Your task to perform on an android device: Open the calendar app, open the side menu, and click the "Day" option Image 0: 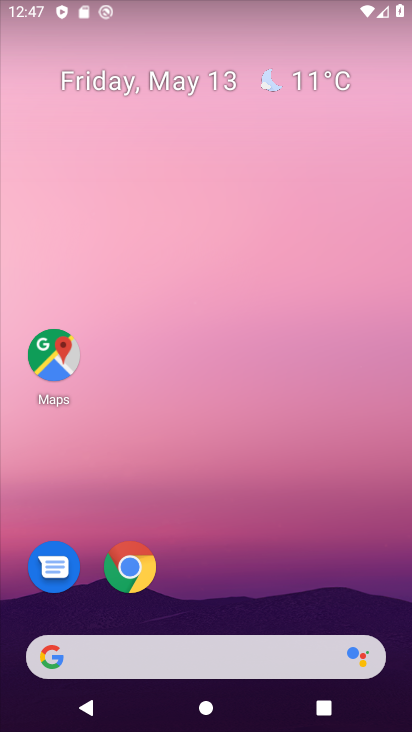
Step 0: drag from (164, 648) to (256, 266)
Your task to perform on an android device: Open the calendar app, open the side menu, and click the "Day" option Image 1: 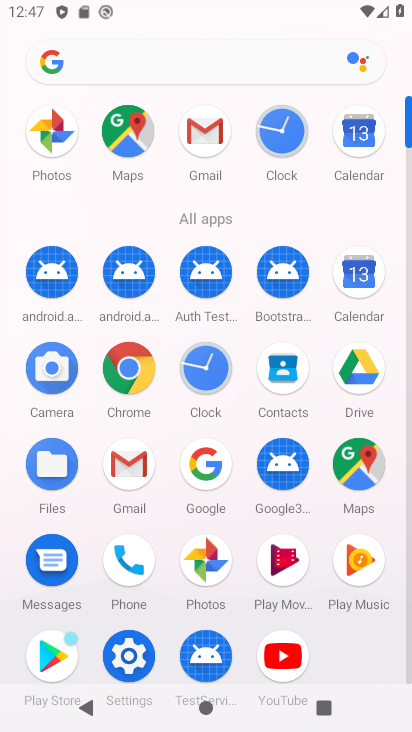
Step 1: click (362, 262)
Your task to perform on an android device: Open the calendar app, open the side menu, and click the "Day" option Image 2: 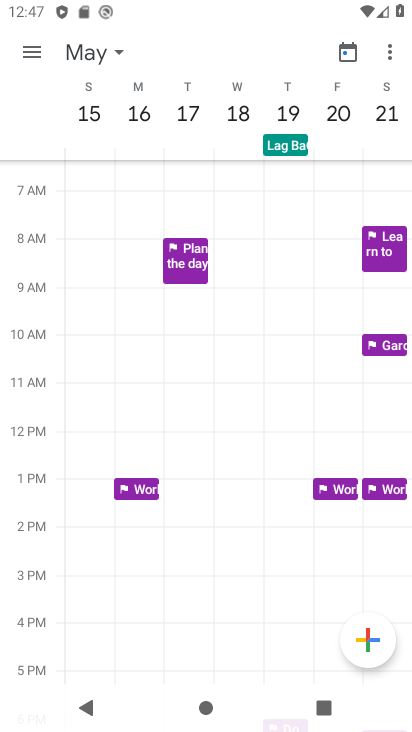
Step 2: click (37, 54)
Your task to perform on an android device: Open the calendar app, open the side menu, and click the "Day" option Image 3: 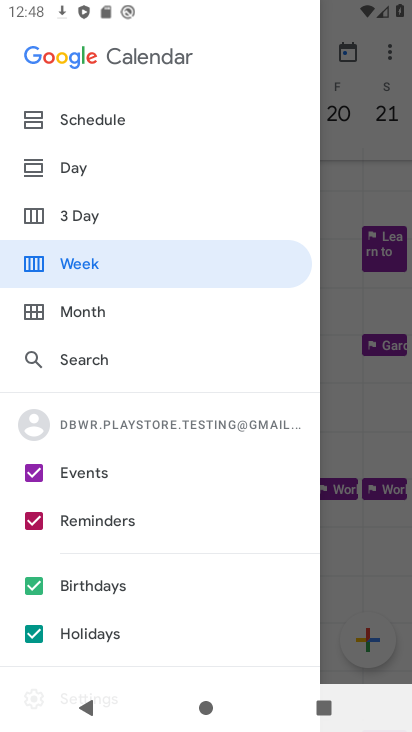
Step 3: click (131, 161)
Your task to perform on an android device: Open the calendar app, open the side menu, and click the "Day" option Image 4: 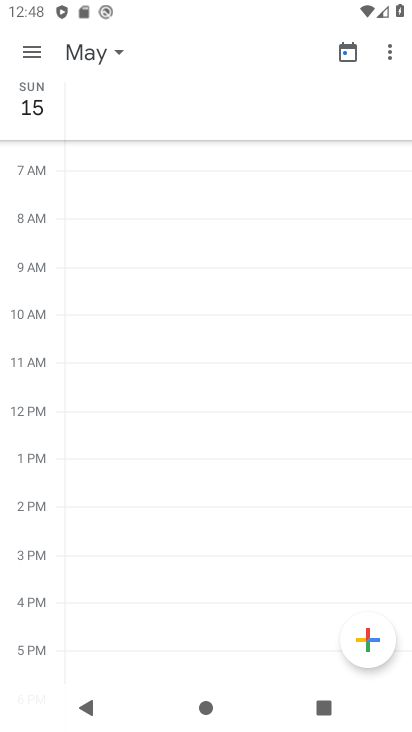
Step 4: task complete